Your task to perform on an android device: toggle show notifications on the lock screen Image 0: 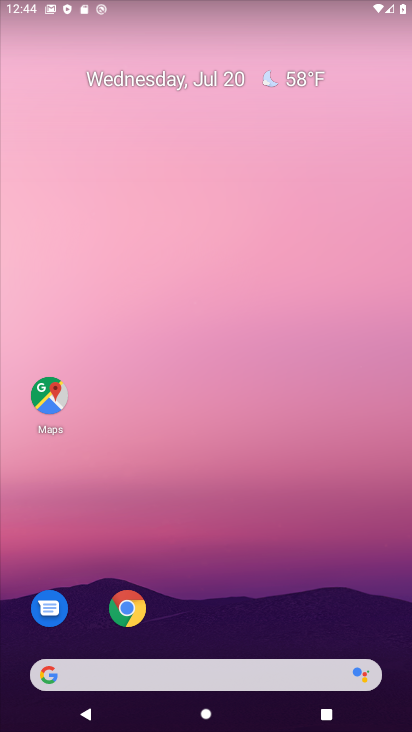
Step 0: drag from (236, 718) to (230, 160)
Your task to perform on an android device: toggle show notifications on the lock screen Image 1: 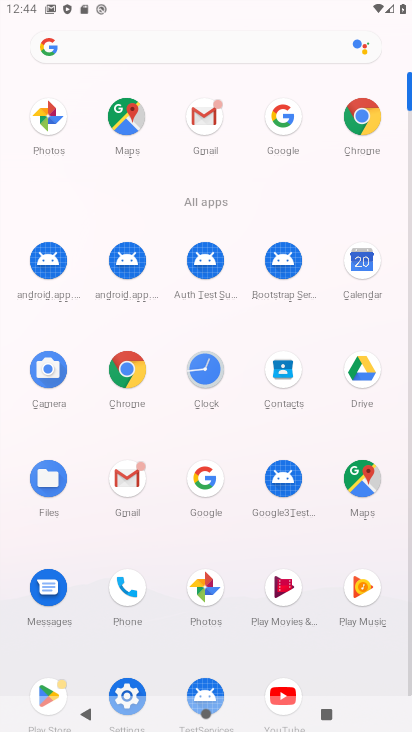
Step 1: click (125, 686)
Your task to perform on an android device: toggle show notifications on the lock screen Image 2: 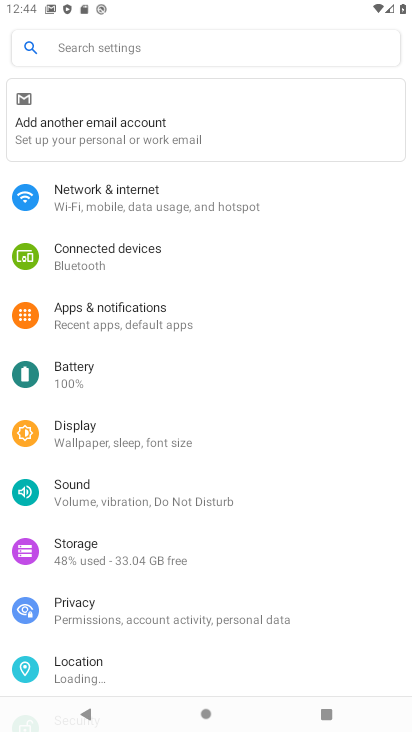
Step 2: click (120, 328)
Your task to perform on an android device: toggle show notifications on the lock screen Image 3: 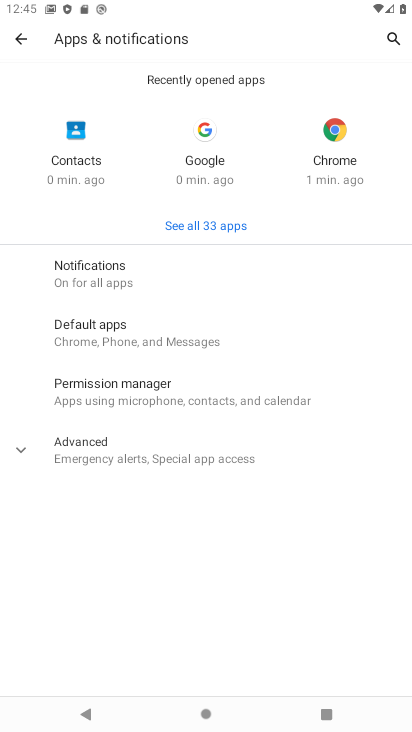
Step 3: click (85, 271)
Your task to perform on an android device: toggle show notifications on the lock screen Image 4: 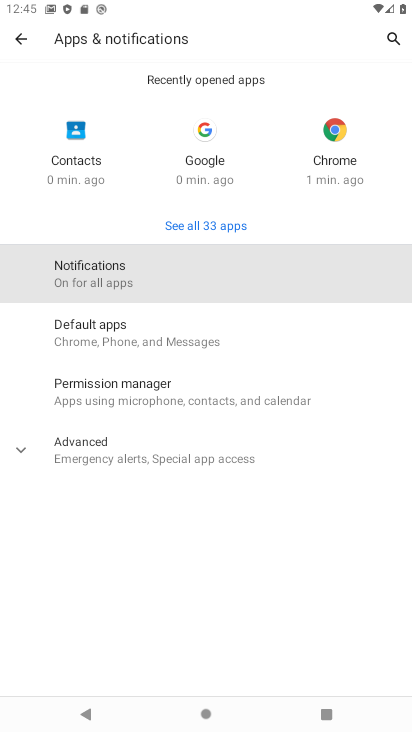
Step 4: click (85, 271)
Your task to perform on an android device: toggle show notifications on the lock screen Image 5: 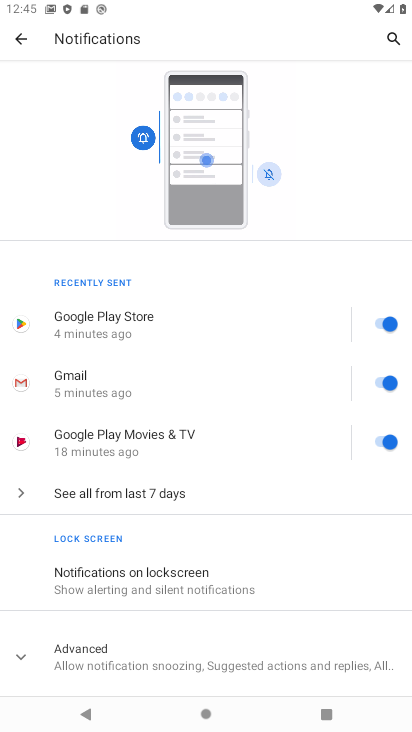
Step 5: click (121, 585)
Your task to perform on an android device: toggle show notifications on the lock screen Image 6: 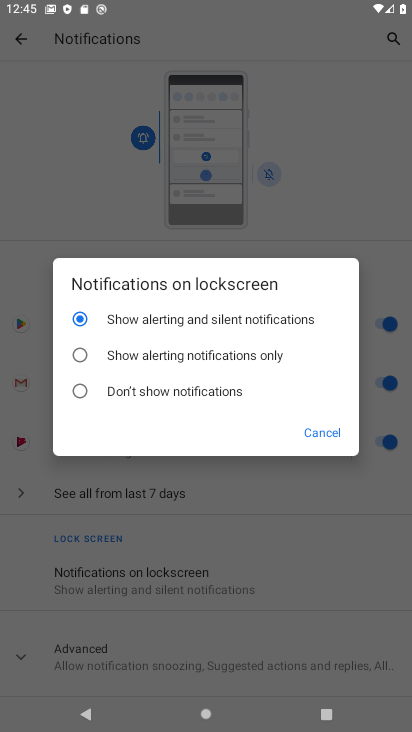
Step 6: click (77, 383)
Your task to perform on an android device: toggle show notifications on the lock screen Image 7: 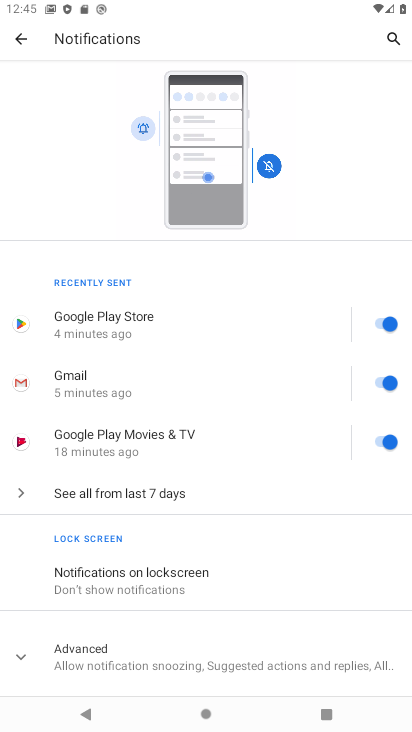
Step 7: task complete